Your task to perform on an android device: turn off smart reply in the gmail app Image 0: 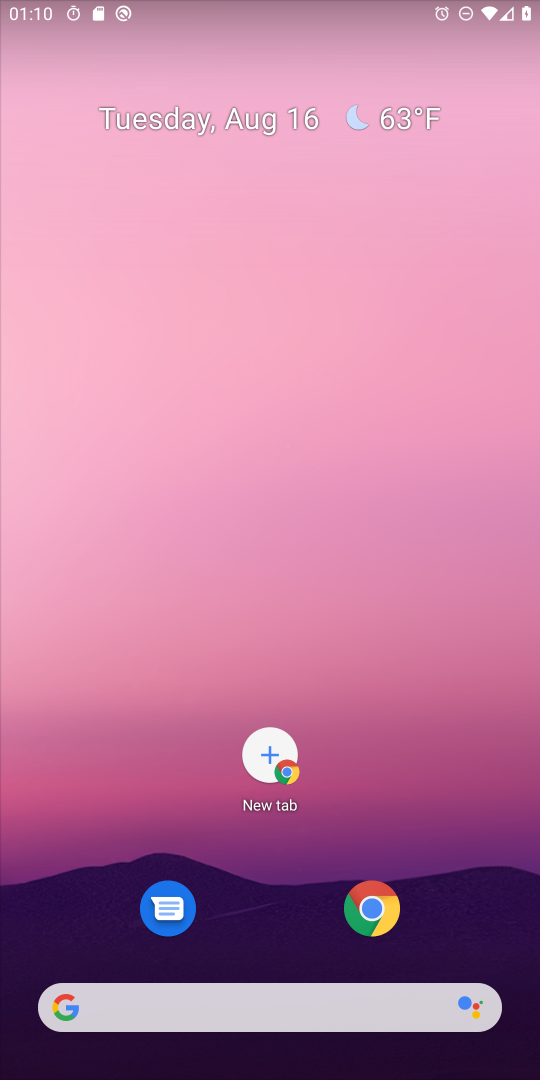
Step 0: click (419, 26)
Your task to perform on an android device: turn off smart reply in the gmail app Image 1: 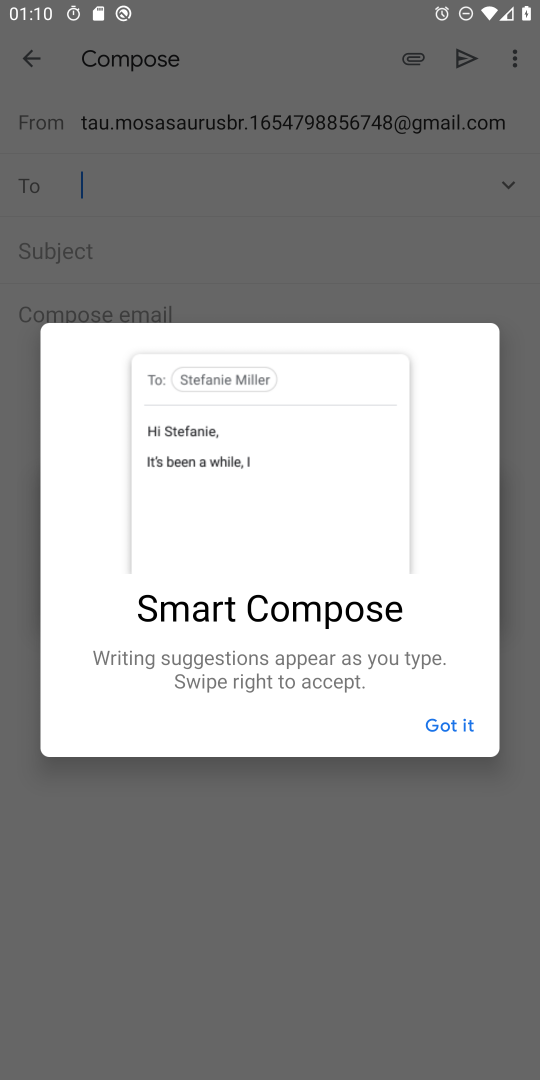
Step 1: click (448, 720)
Your task to perform on an android device: turn off smart reply in the gmail app Image 2: 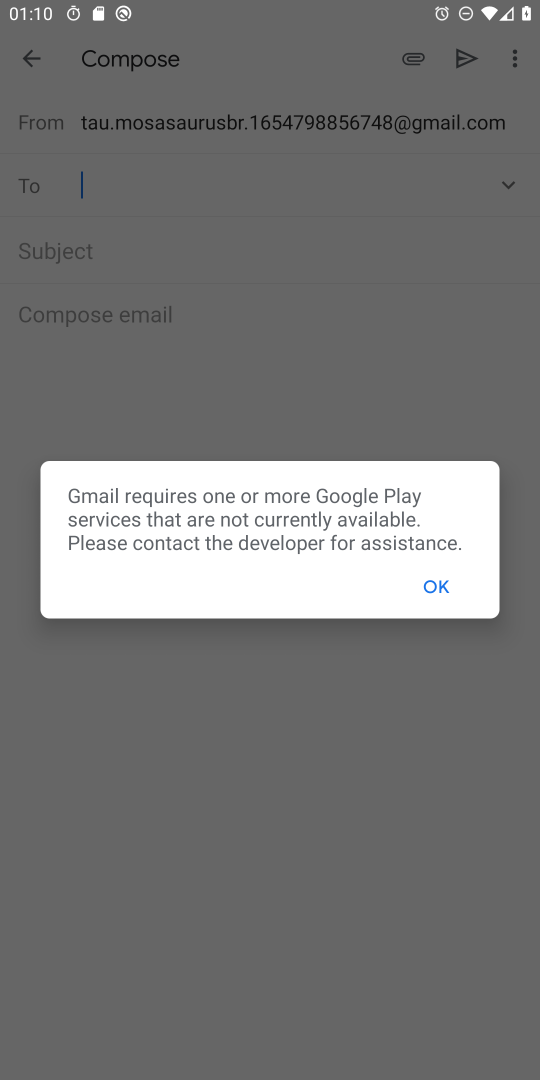
Step 2: click (433, 576)
Your task to perform on an android device: turn off smart reply in the gmail app Image 3: 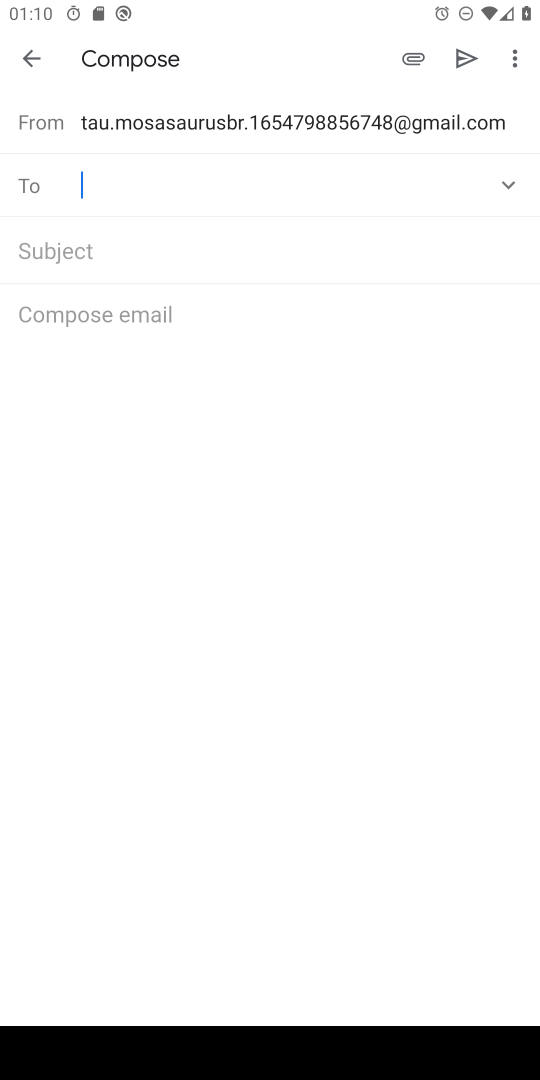
Step 3: click (35, 51)
Your task to perform on an android device: turn off smart reply in the gmail app Image 4: 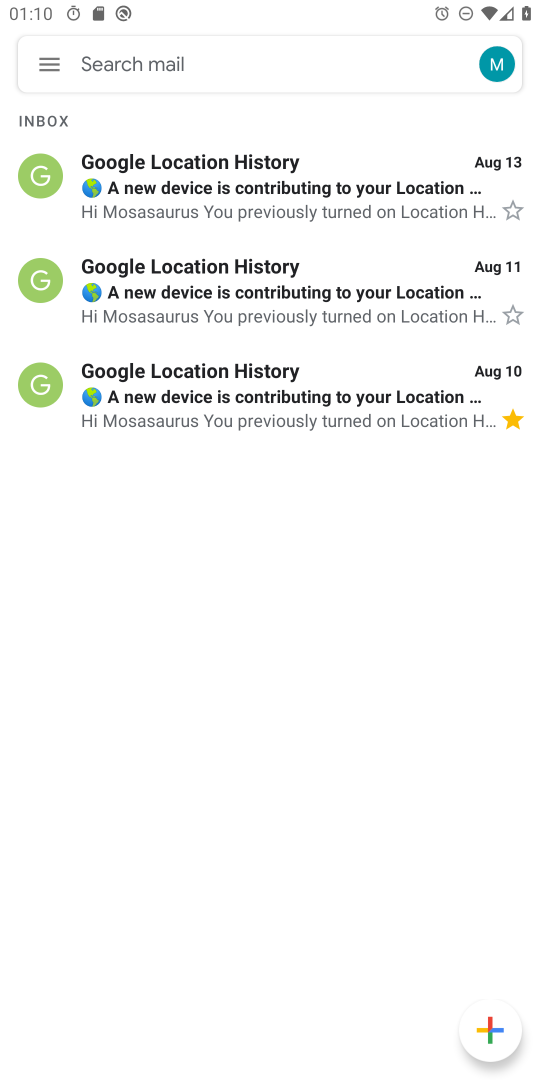
Step 4: click (35, 51)
Your task to perform on an android device: turn off smart reply in the gmail app Image 5: 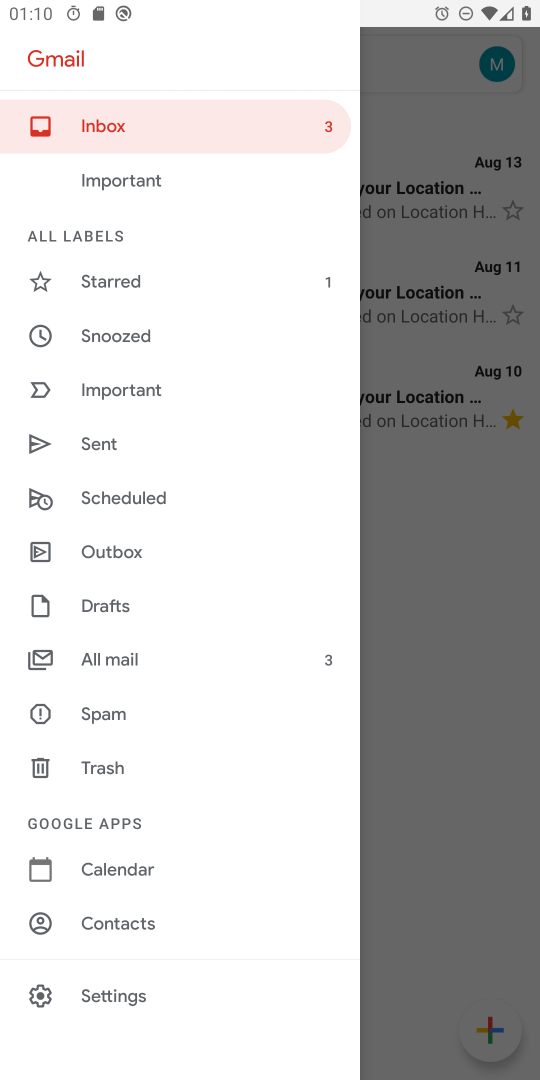
Step 5: click (119, 1006)
Your task to perform on an android device: turn off smart reply in the gmail app Image 6: 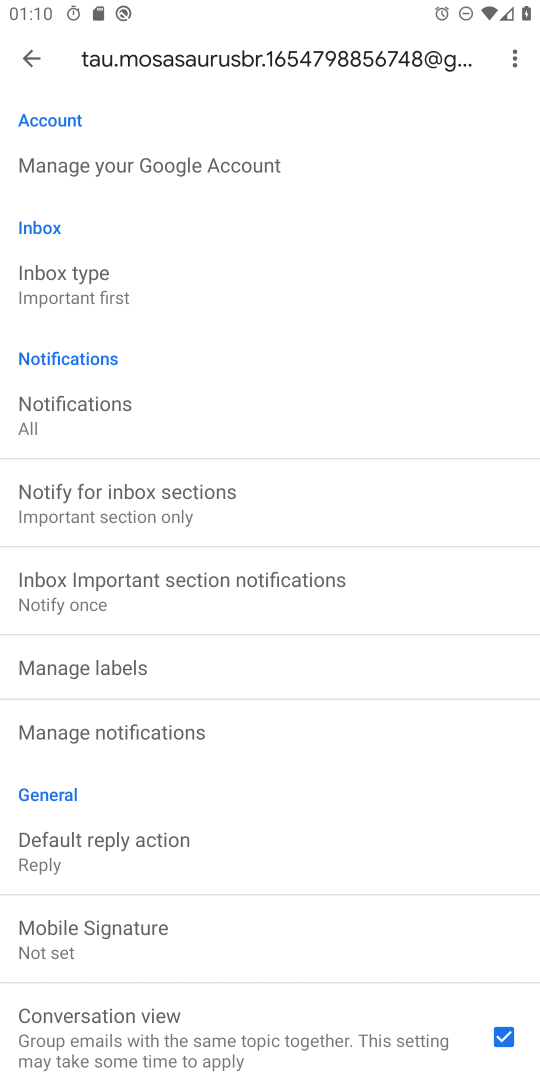
Step 6: drag from (94, 970) to (195, 15)
Your task to perform on an android device: turn off smart reply in the gmail app Image 7: 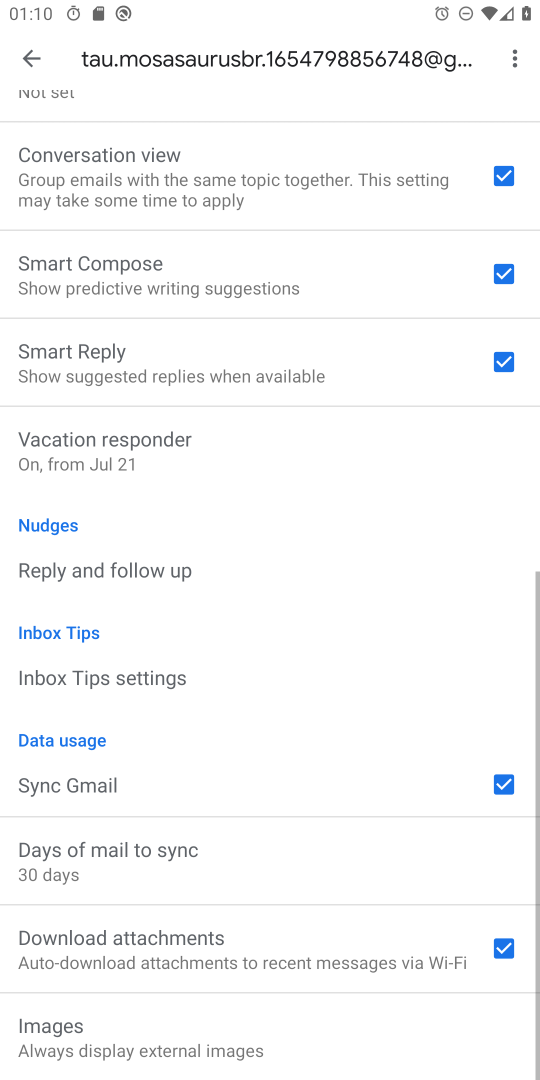
Step 7: click (195, 15)
Your task to perform on an android device: turn off smart reply in the gmail app Image 8: 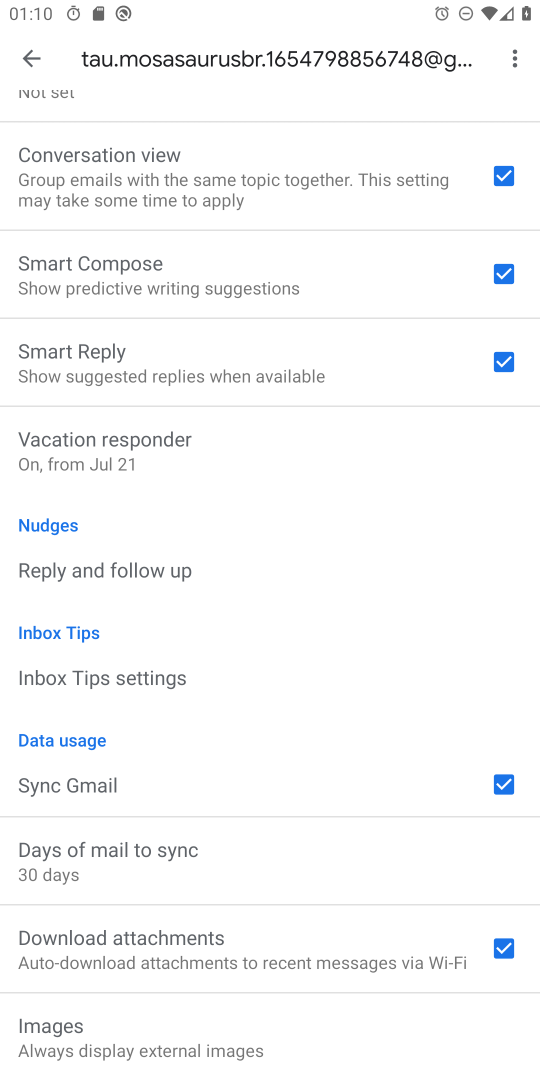
Step 8: drag from (185, 1013) to (267, 102)
Your task to perform on an android device: turn off smart reply in the gmail app Image 9: 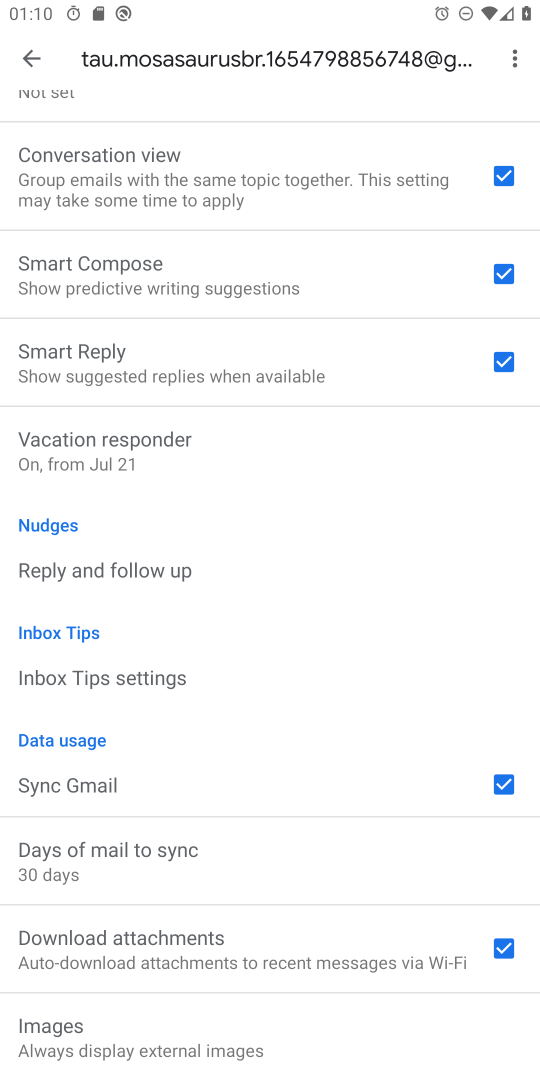
Step 9: drag from (214, 895) to (354, 5)
Your task to perform on an android device: turn off smart reply in the gmail app Image 10: 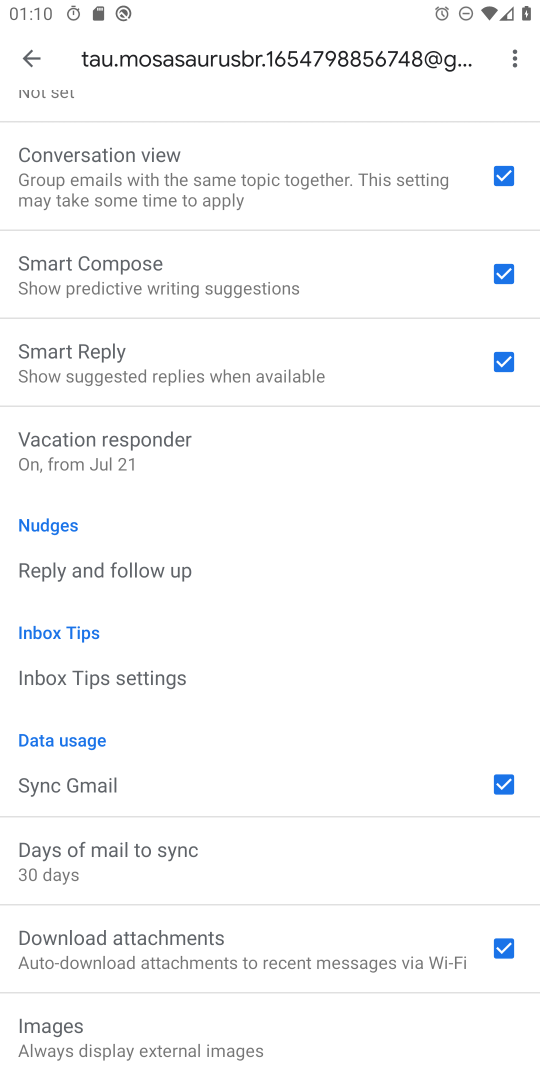
Step 10: click (500, 361)
Your task to perform on an android device: turn off smart reply in the gmail app Image 11: 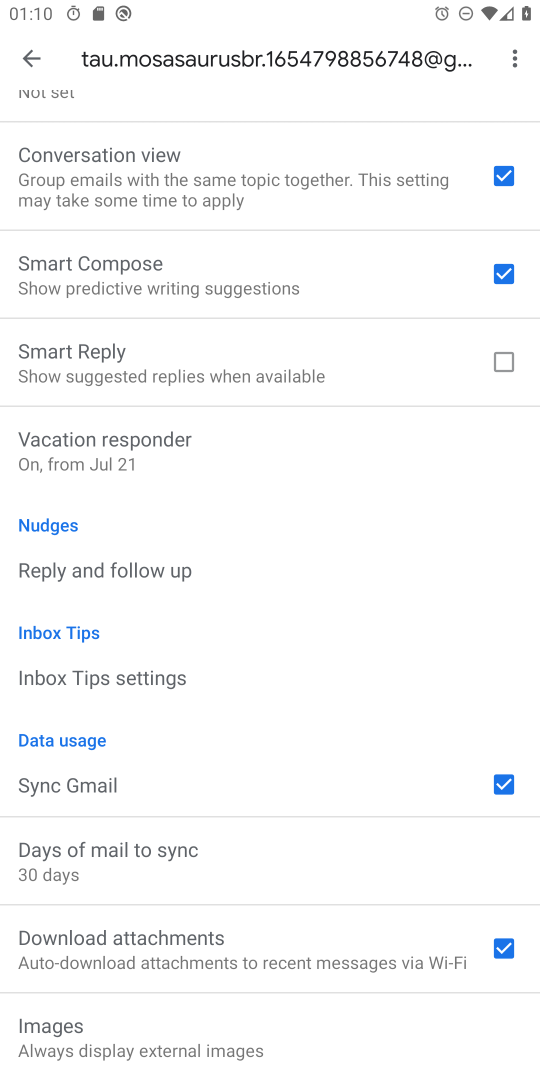
Step 11: task complete